Your task to perform on an android device: Open battery settings Image 0: 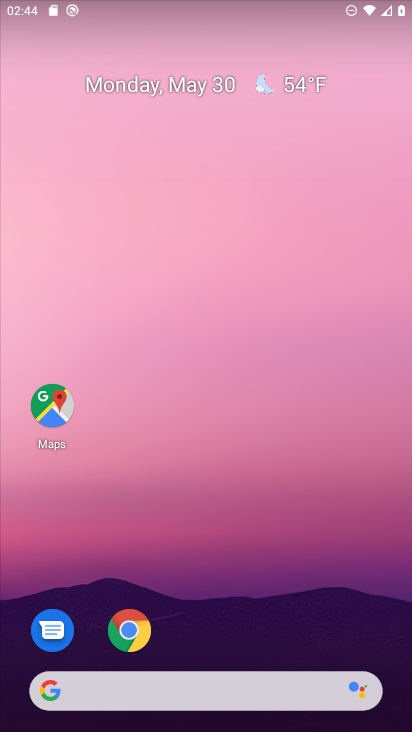
Step 0: drag from (186, 688) to (296, 198)
Your task to perform on an android device: Open battery settings Image 1: 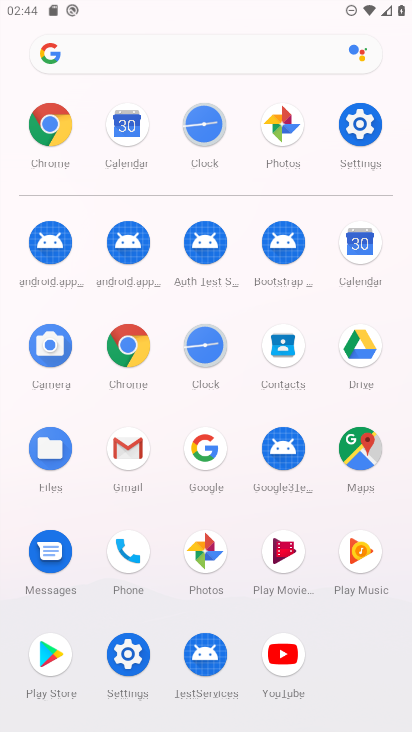
Step 1: click (355, 127)
Your task to perform on an android device: Open battery settings Image 2: 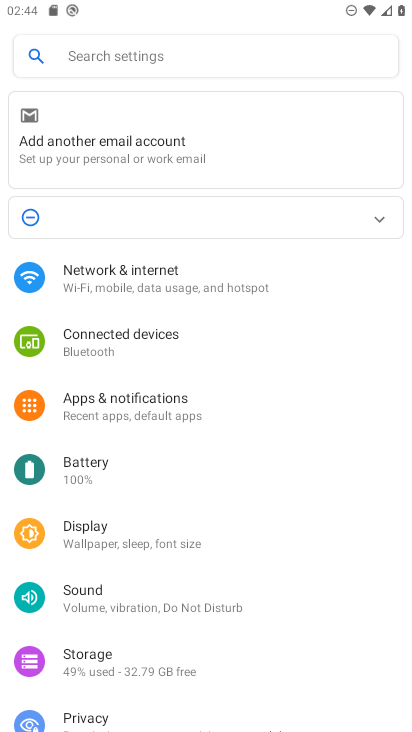
Step 2: click (82, 474)
Your task to perform on an android device: Open battery settings Image 3: 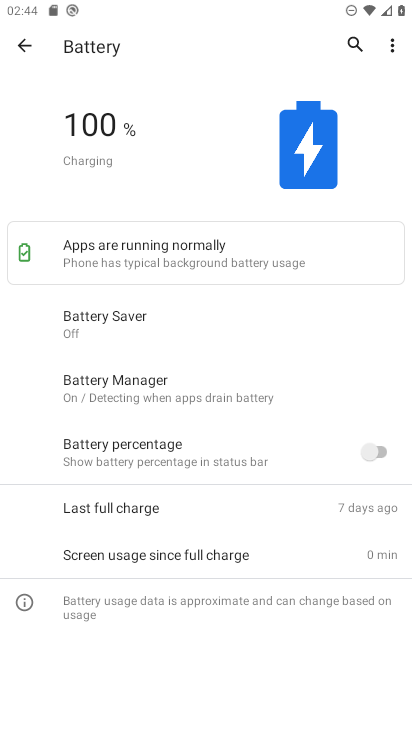
Step 3: task complete